Your task to perform on an android device: change the clock display to digital Image 0: 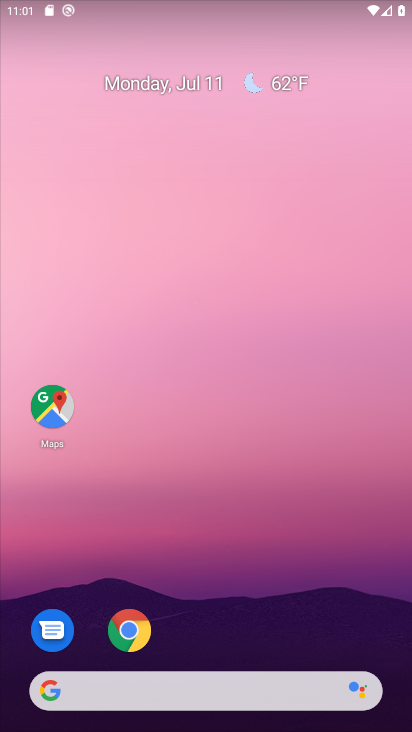
Step 0: drag from (269, 586) to (295, 21)
Your task to perform on an android device: change the clock display to digital Image 1: 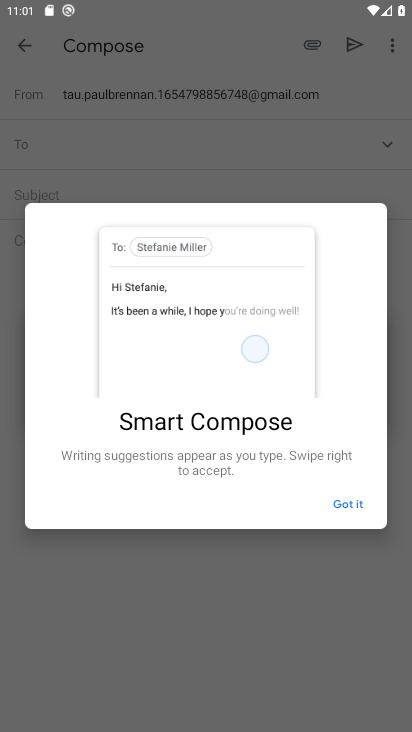
Step 1: press home button
Your task to perform on an android device: change the clock display to digital Image 2: 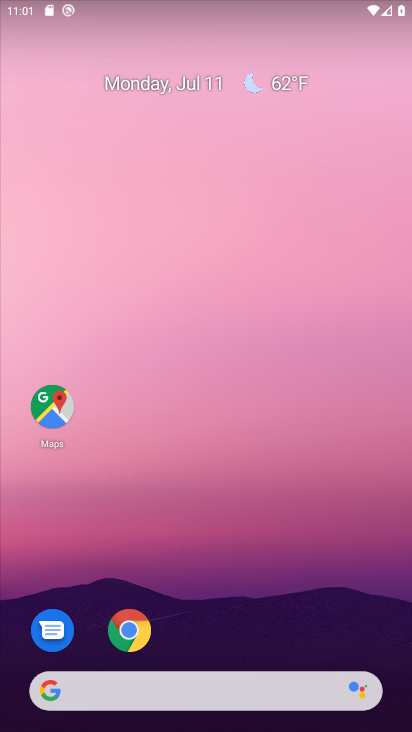
Step 2: drag from (276, 607) to (316, 3)
Your task to perform on an android device: change the clock display to digital Image 3: 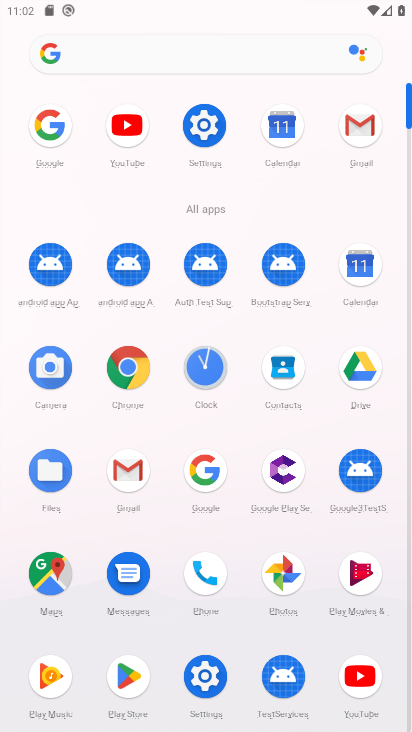
Step 3: drag from (244, 516) to (285, 255)
Your task to perform on an android device: change the clock display to digital Image 4: 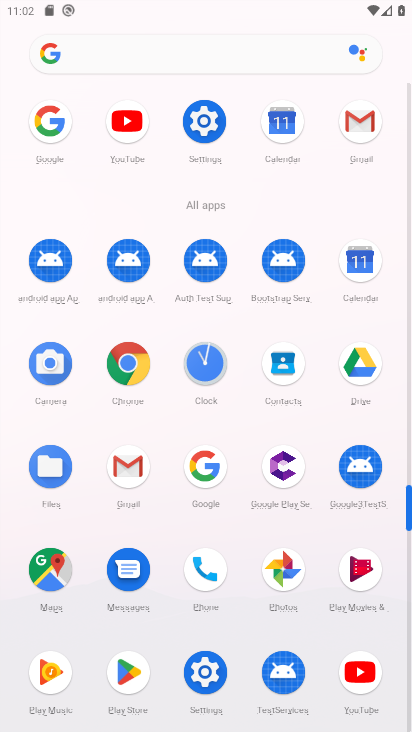
Step 4: click (206, 361)
Your task to perform on an android device: change the clock display to digital Image 5: 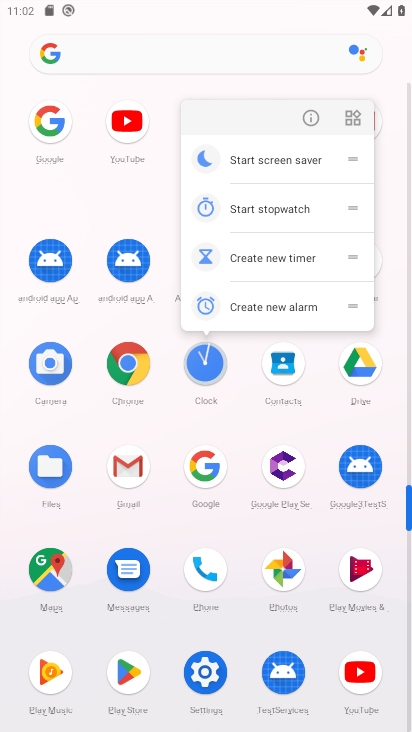
Step 5: click (205, 359)
Your task to perform on an android device: change the clock display to digital Image 6: 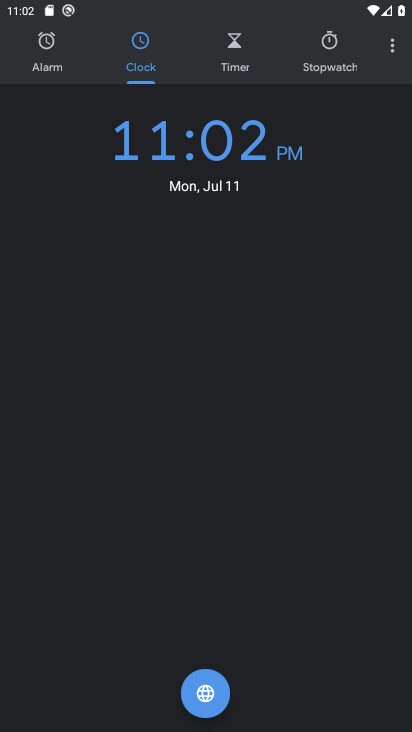
Step 6: task complete